Your task to perform on an android device: Open accessibility settings Image 0: 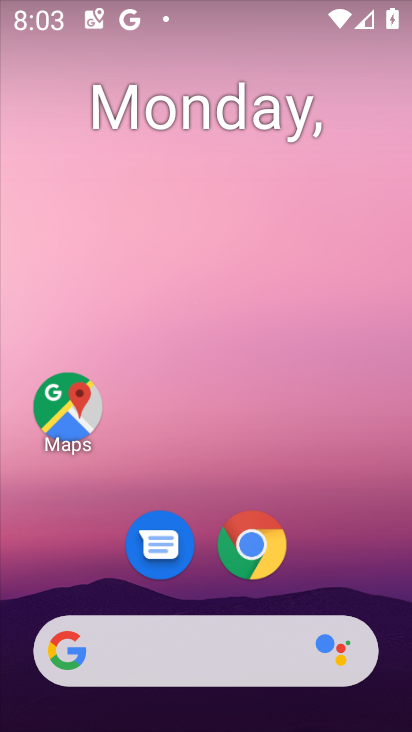
Step 0: drag from (178, 645) to (293, 113)
Your task to perform on an android device: Open accessibility settings Image 1: 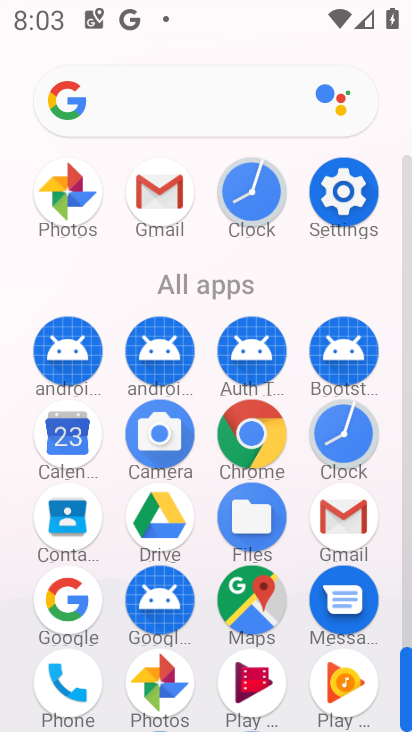
Step 1: click (342, 206)
Your task to perform on an android device: Open accessibility settings Image 2: 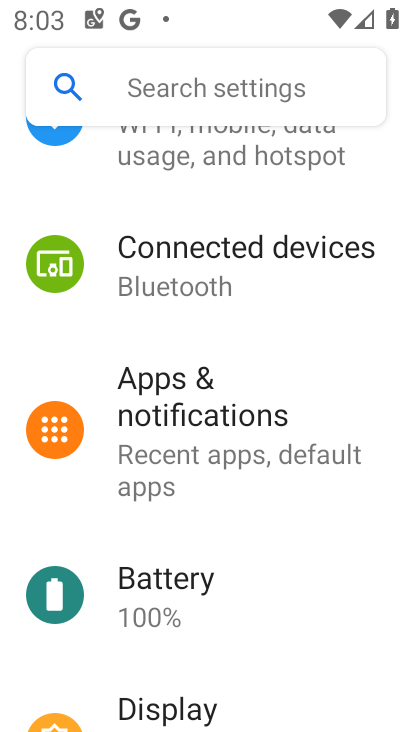
Step 2: drag from (282, 613) to (316, 114)
Your task to perform on an android device: Open accessibility settings Image 3: 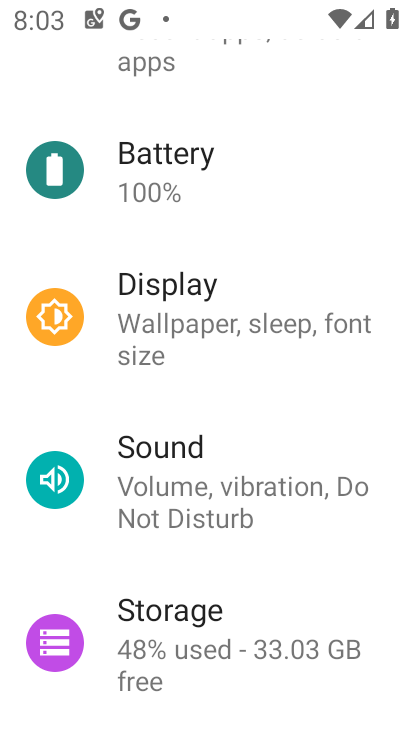
Step 3: drag from (294, 588) to (403, 18)
Your task to perform on an android device: Open accessibility settings Image 4: 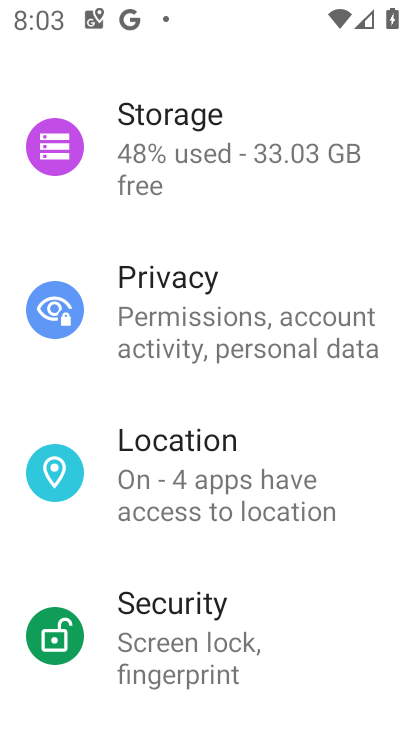
Step 4: drag from (298, 608) to (353, 139)
Your task to perform on an android device: Open accessibility settings Image 5: 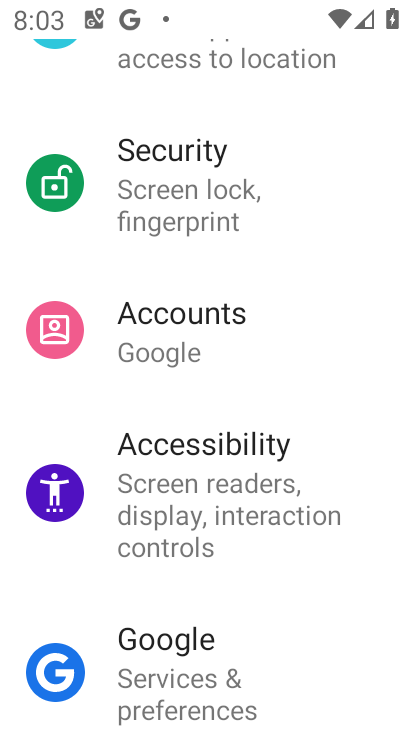
Step 5: click (208, 471)
Your task to perform on an android device: Open accessibility settings Image 6: 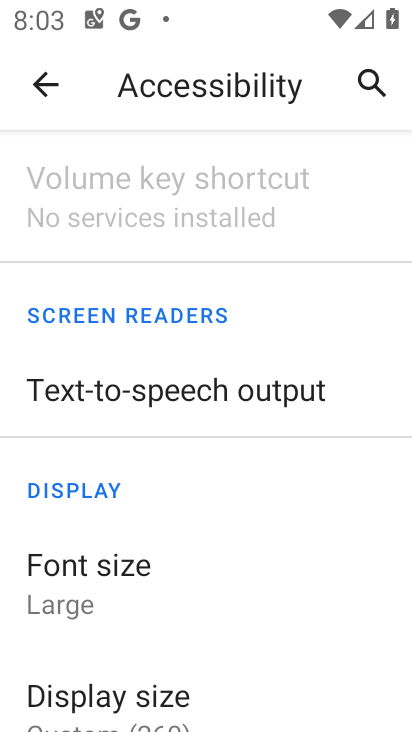
Step 6: task complete